Your task to perform on an android device: Go to privacy settings Image 0: 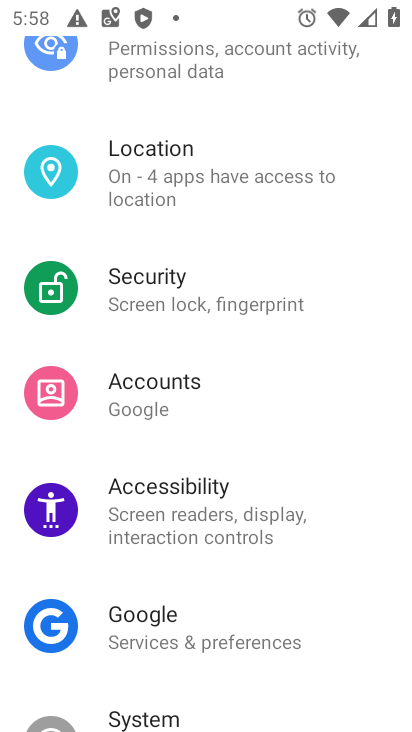
Step 0: drag from (162, 707) to (230, 157)
Your task to perform on an android device: Go to privacy settings Image 1: 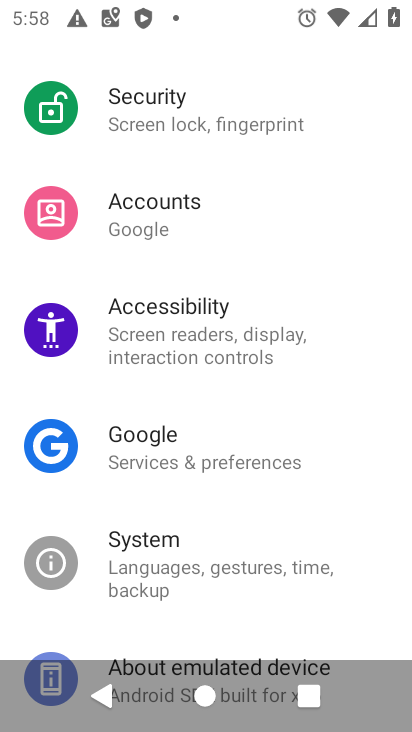
Step 1: drag from (209, 139) to (217, 547)
Your task to perform on an android device: Go to privacy settings Image 2: 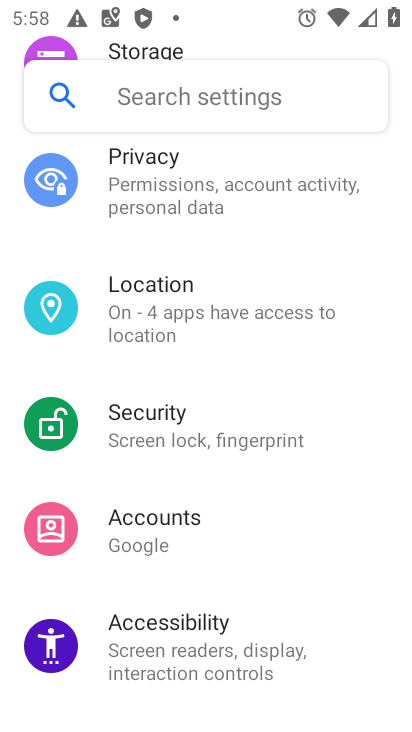
Step 2: click (163, 187)
Your task to perform on an android device: Go to privacy settings Image 3: 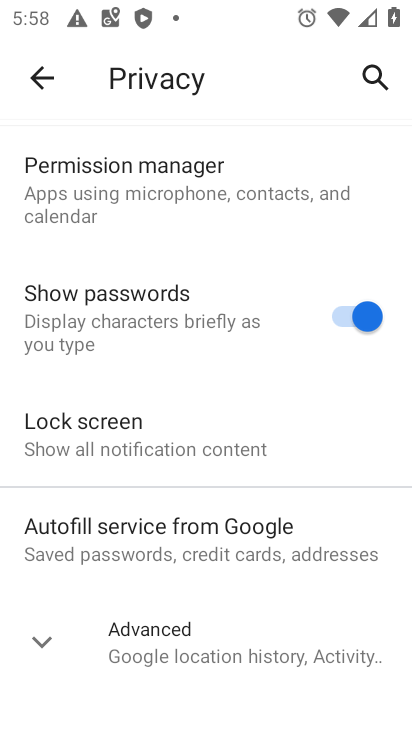
Step 3: click (160, 650)
Your task to perform on an android device: Go to privacy settings Image 4: 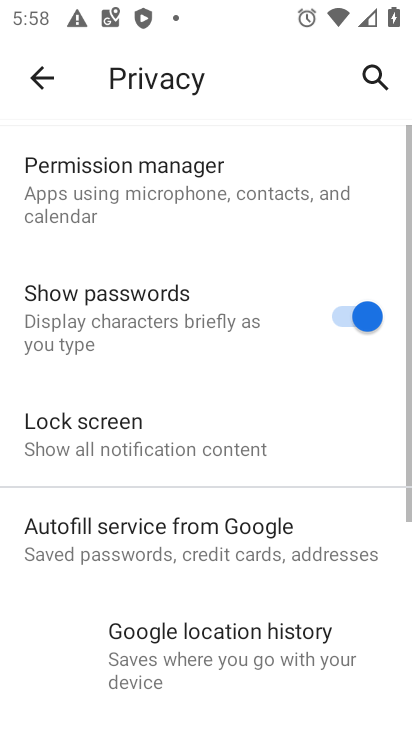
Step 4: task complete